Your task to perform on an android device: Open maps Image 0: 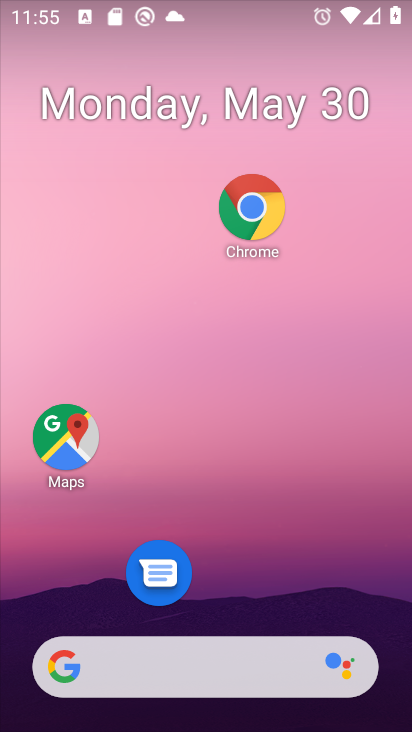
Step 0: drag from (217, 620) to (250, 53)
Your task to perform on an android device: Open maps Image 1: 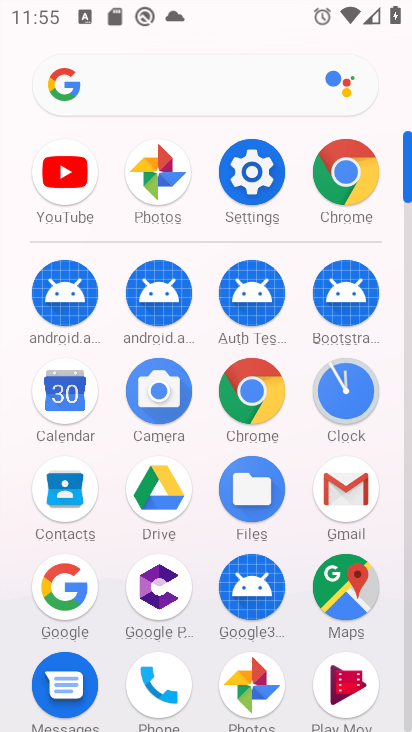
Step 1: click (341, 595)
Your task to perform on an android device: Open maps Image 2: 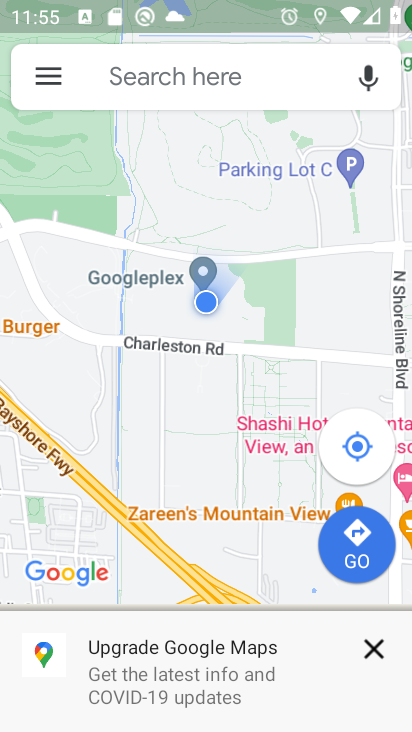
Step 2: task complete